Your task to perform on an android device: change keyboard looks Image 0: 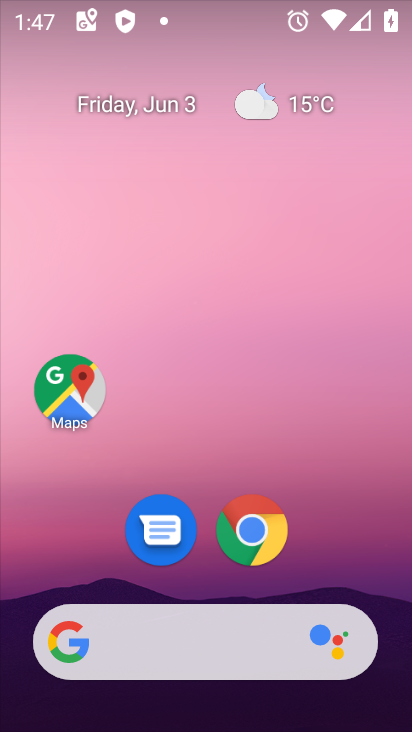
Step 0: press home button
Your task to perform on an android device: change keyboard looks Image 1: 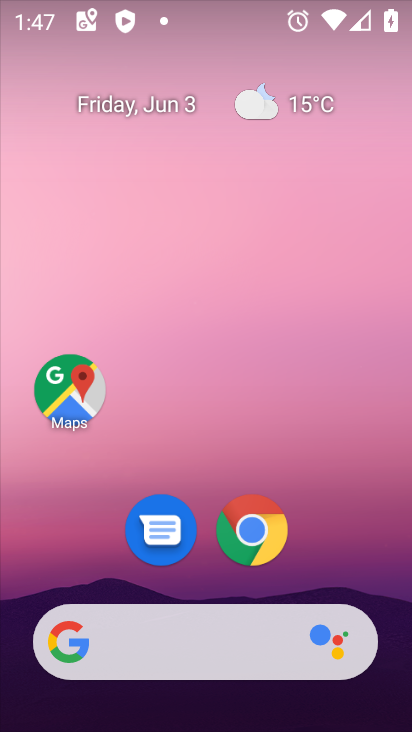
Step 1: drag from (355, 539) to (337, 153)
Your task to perform on an android device: change keyboard looks Image 2: 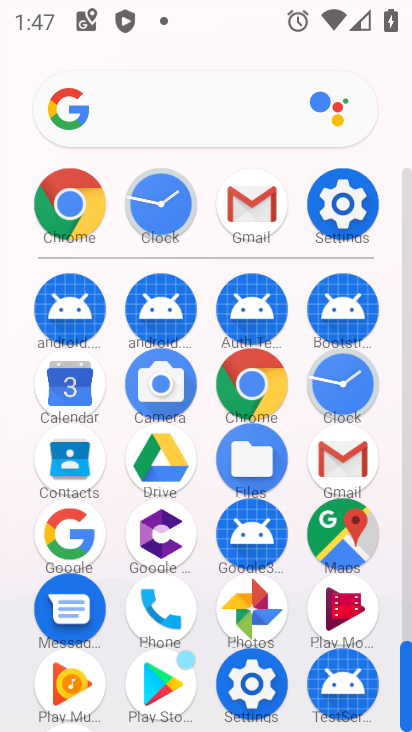
Step 2: click (355, 211)
Your task to perform on an android device: change keyboard looks Image 3: 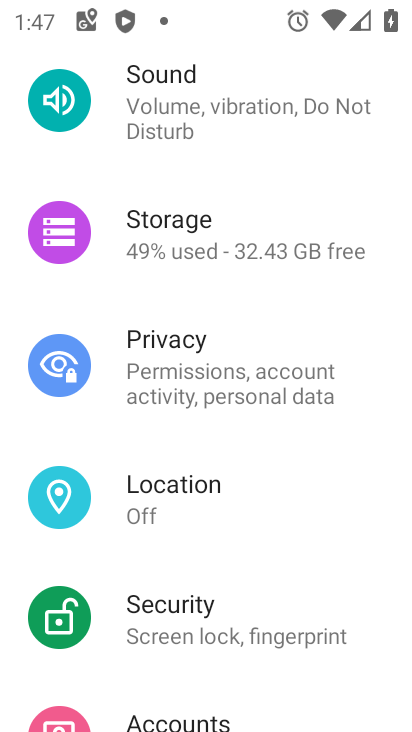
Step 3: drag from (358, 676) to (341, 117)
Your task to perform on an android device: change keyboard looks Image 4: 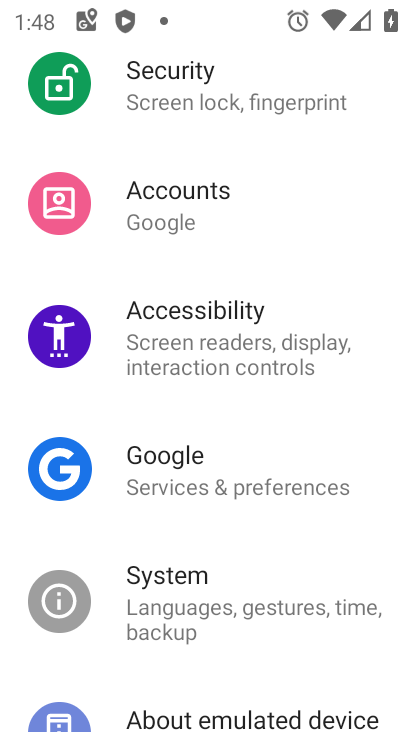
Step 4: click (287, 601)
Your task to perform on an android device: change keyboard looks Image 5: 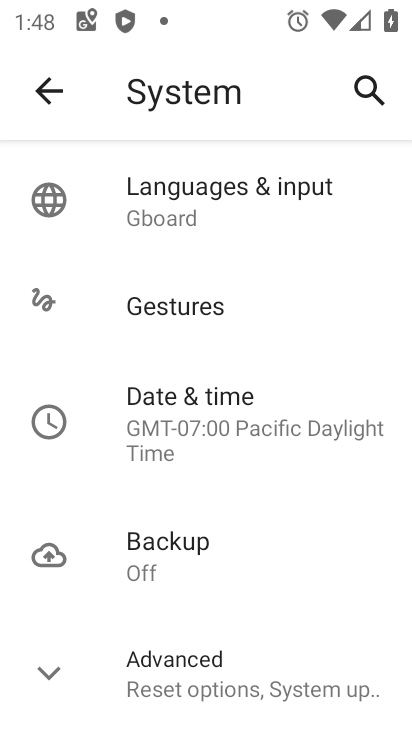
Step 5: click (167, 312)
Your task to perform on an android device: change keyboard looks Image 6: 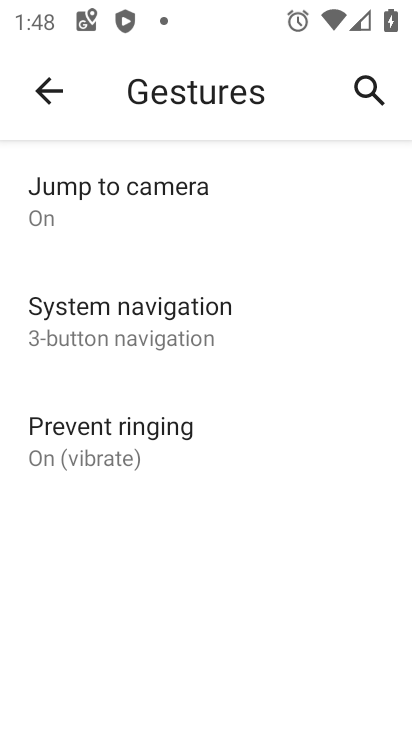
Step 6: click (49, 92)
Your task to perform on an android device: change keyboard looks Image 7: 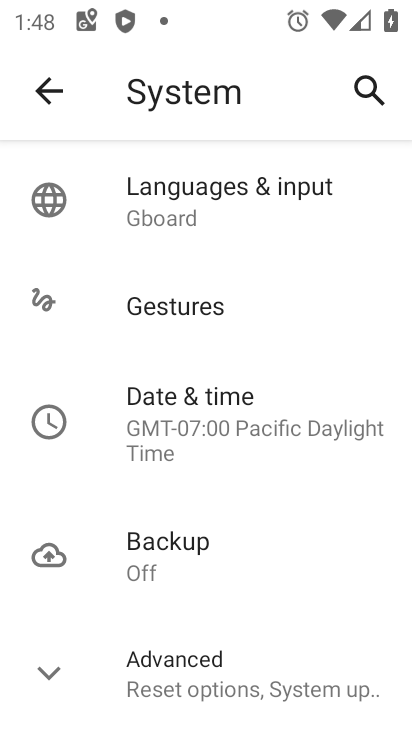
Step 7: click (278, 203)
Your task to perform on an android device: change keyboard looks Image 8: 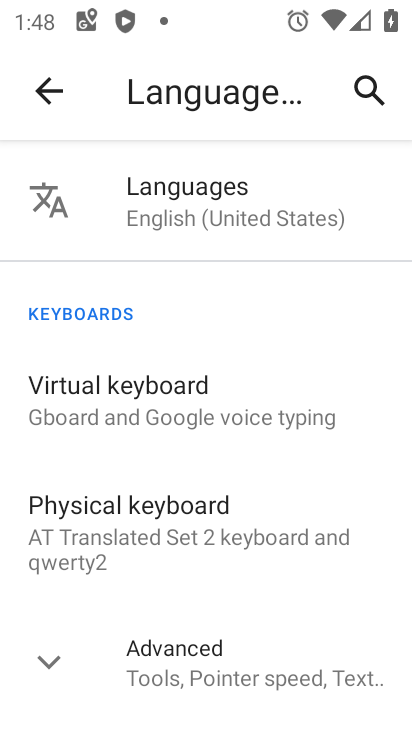
Step 8: click (124, 430)
Your task to perform on an android device: change keyboard looks Image 9: 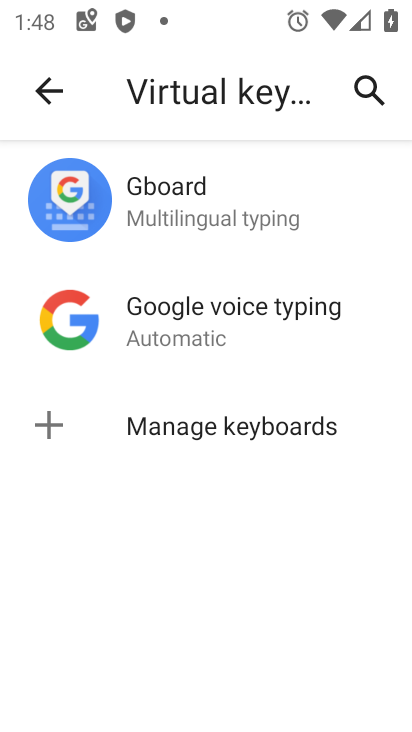
Step 9: click (130, 195)
Your task to perform on an android device: change keyboard looks Image 10: 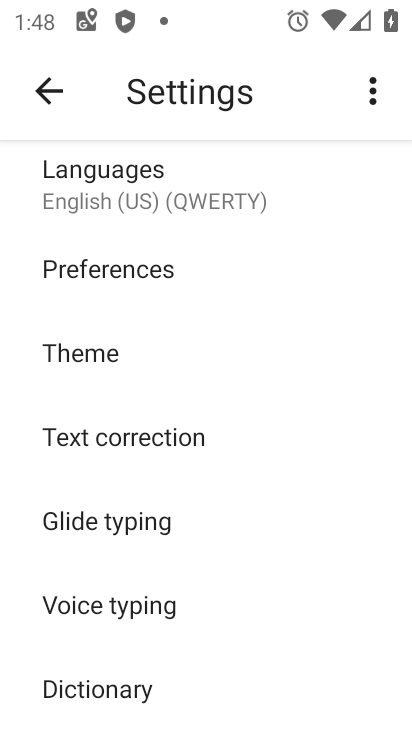
Step 10: click (128, 358)
Your task to perform on an android device: change keyboard looks Image 11: 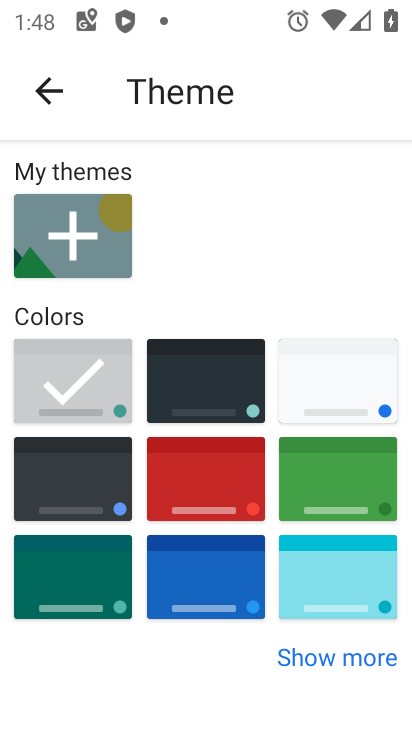
Step 11: click (223, 478)
Your task to perform on an android device: change keyboard looks Image 12: 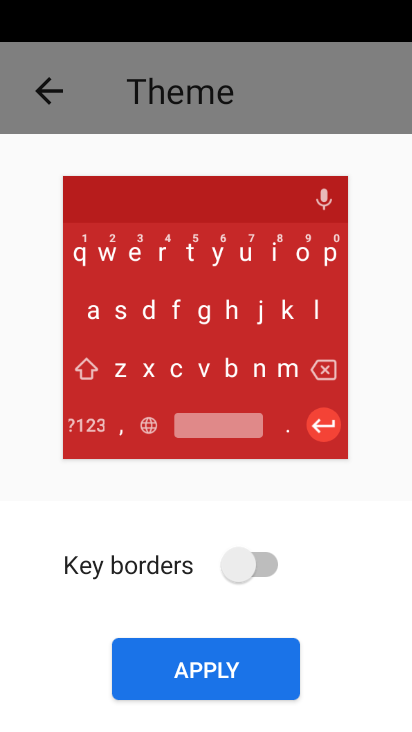
Step 12: click (224, 676)
Your task to perform on an android device: change keyboard looks Image 13: 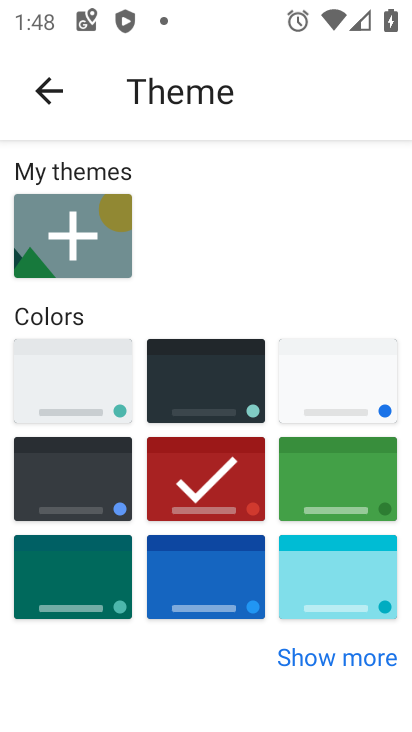
Step 13: task complete